Your task to perform on an android device: set default search engine in the chrome app Image 0: 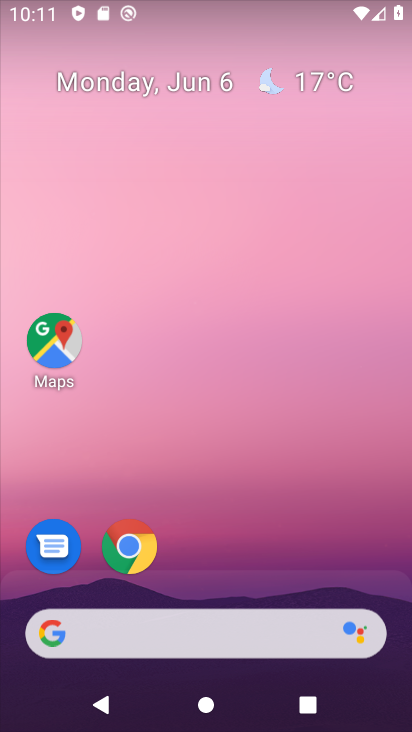
Step 0: click (139, 540)
Your task to perform on an android device: set default search engine in the chrome app Image 1: 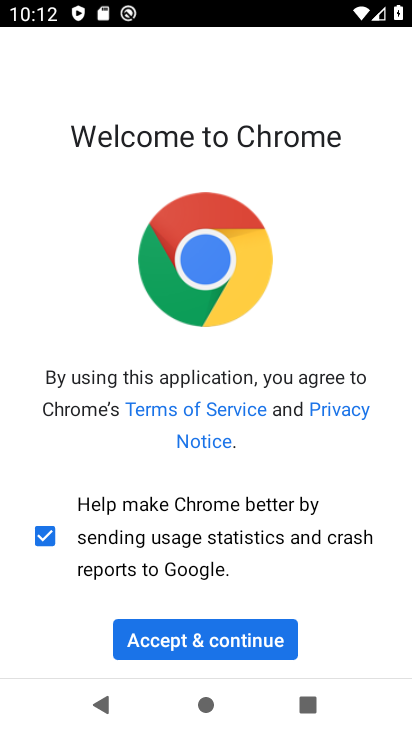
Step 1: click (220, 641)
Your task to perform on an android device: set default search engine in the chrome app Image 2: 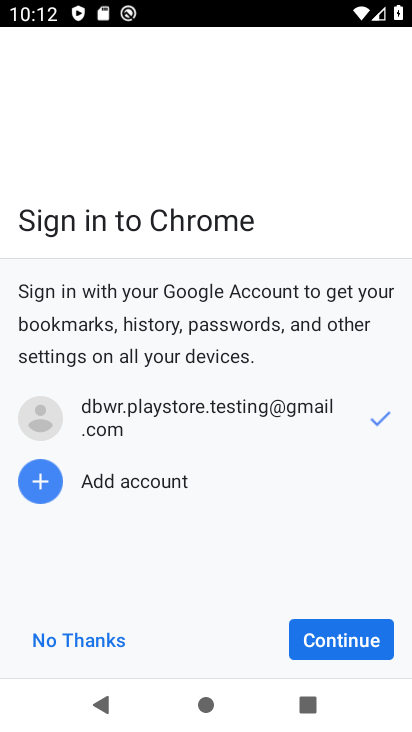
Step 2: click (358, 640)
Your task to perform on an android device: set default search engine in the chrome app Image 3: 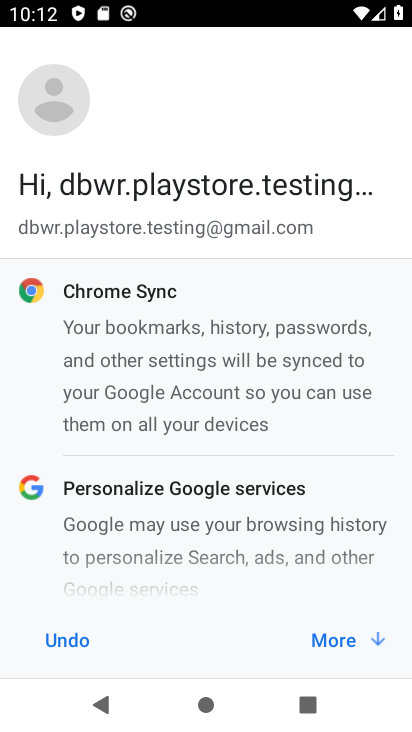
Step 3: click (359, 628)
Your task to perform on an android device: set default search engine in the chrome app Image 4: 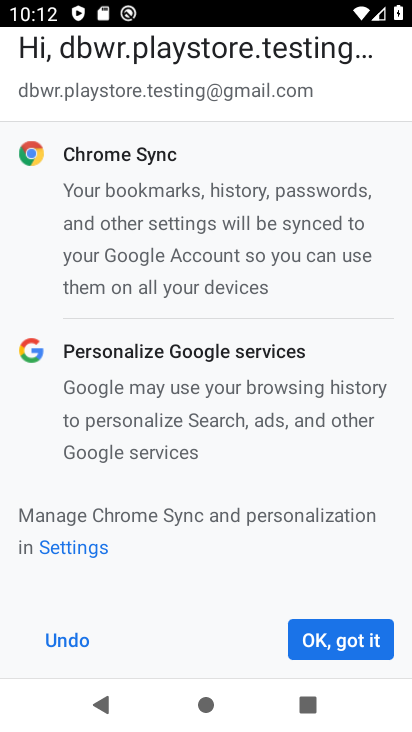
Step 4: click (360, 629)
Your task to perform on an android device: set default search engine in the chrome app Image 5: 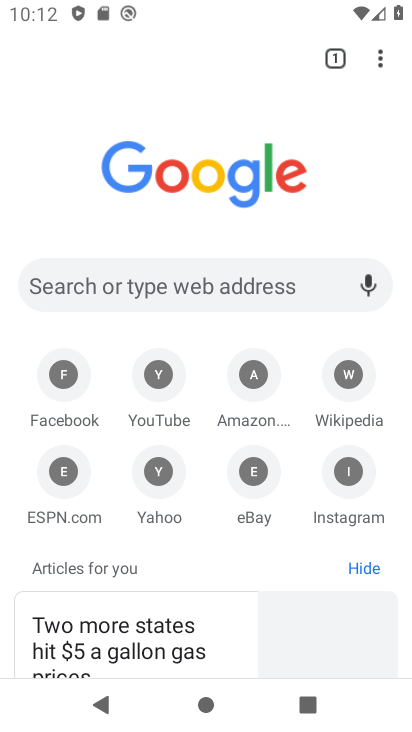
Step 5: click (388, 63)
Your task to perform on an android device: set default search engine in the chrome app Image 6: 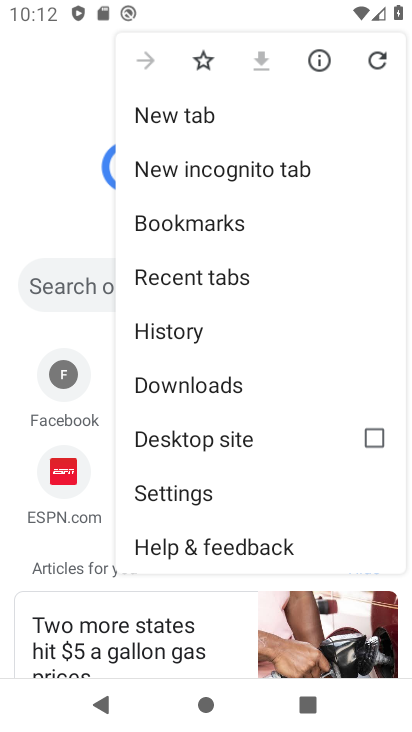
Step 6: click (201, 486)
Your task to perform on an android device: set default search engine in the chrome app Image 7: 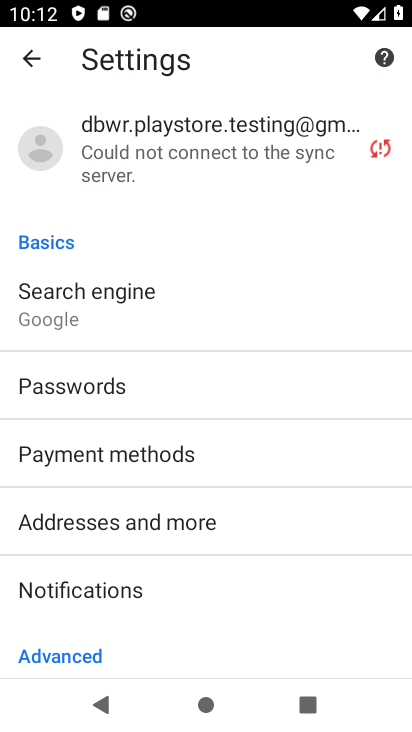
Step 7: click (141, 283)
Your task to perform on an android device: set default search engine in the chrome app Image 8: 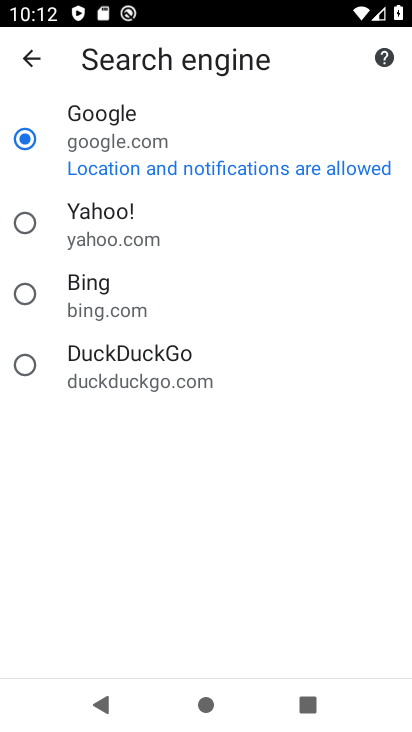
Step 8: click (152, 215)
Your task to perform on an android device: set default search engine in the chrome app Image 9: 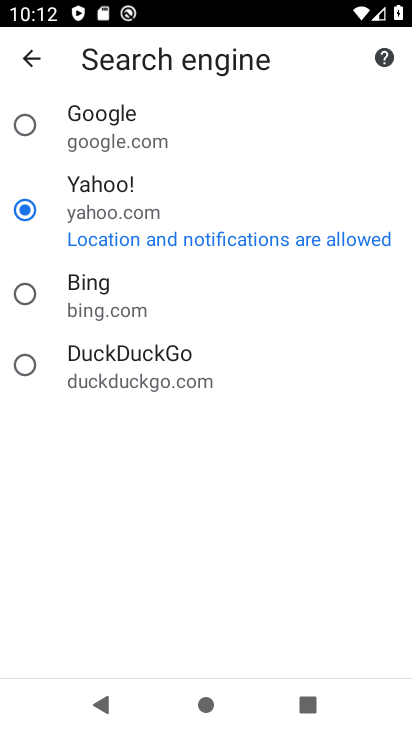
Step 9: task complete